Your task to perform on an android device: Show me recent news Image 0: 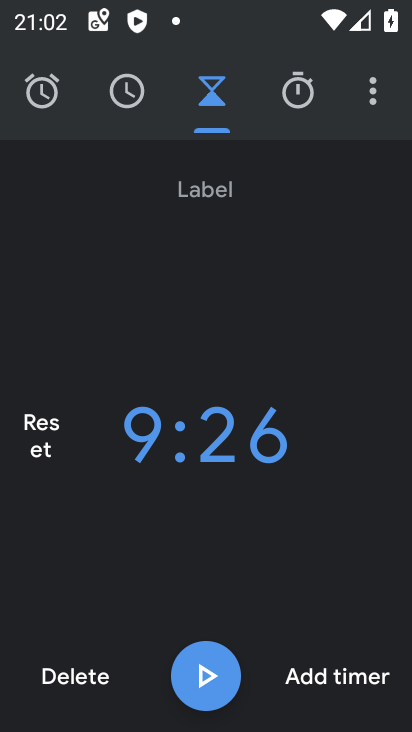
Step 0: press home button
Your task to perform on an android device: Show me recent news Image 1: 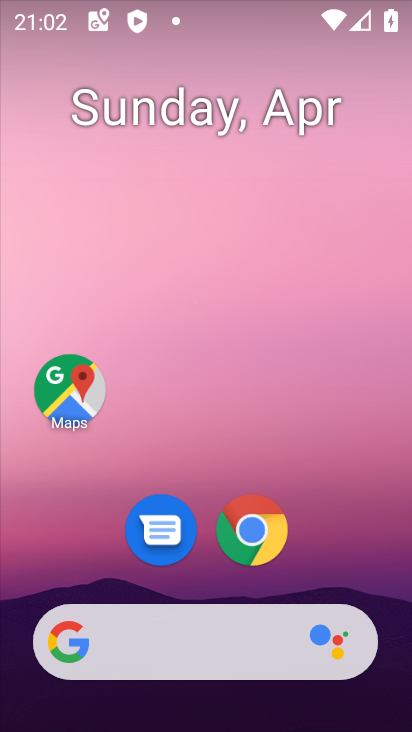
Step 1: click (230, 657)
Your task to perform on an android device: Show me recent news Image 2: 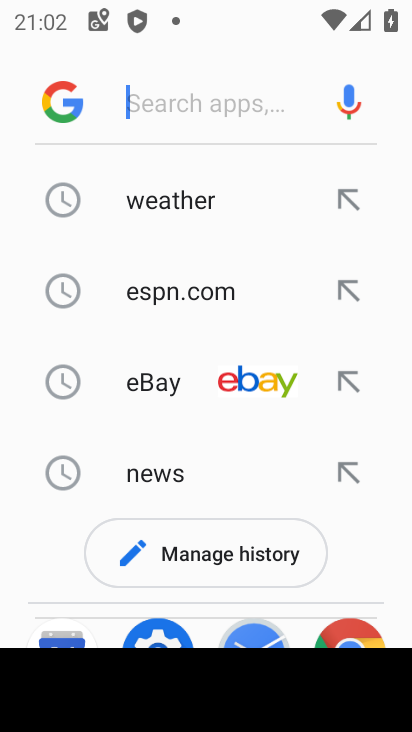
Step 2: click (197, 480)
Your task to perform on an android device: Show me recent news Image 3: 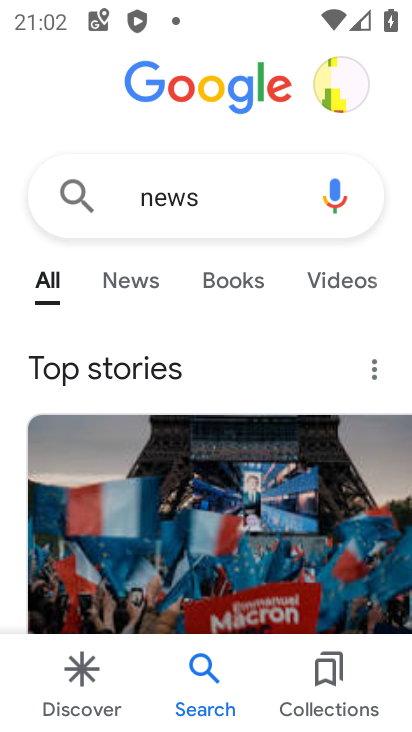
Step 3: task complete